Your task to perform on an android device: change the clock display to digital Image 0: 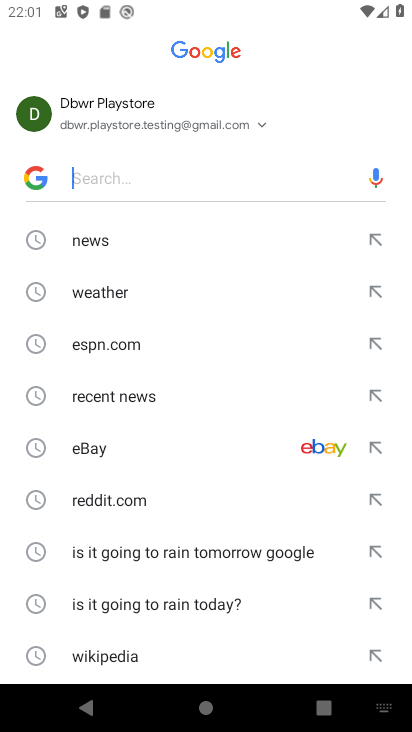
Step 0: press home button
Your task to perform on an android device: change the clock display to digital Image 1: 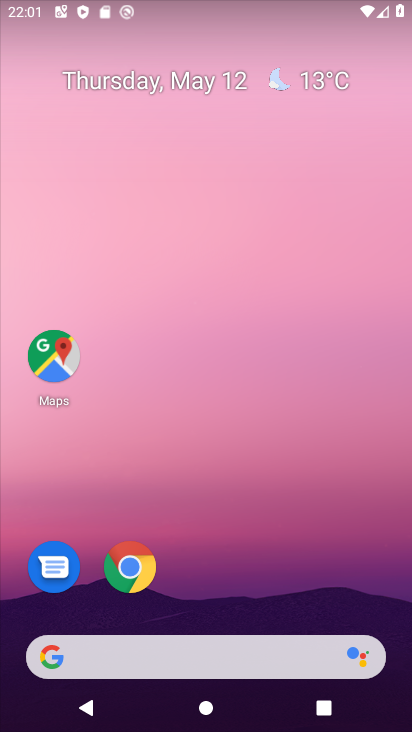
Step 1: drag from (202, 601) to (241, 2)
Your task to perform on an android device: change the clock display to digital Image 2: 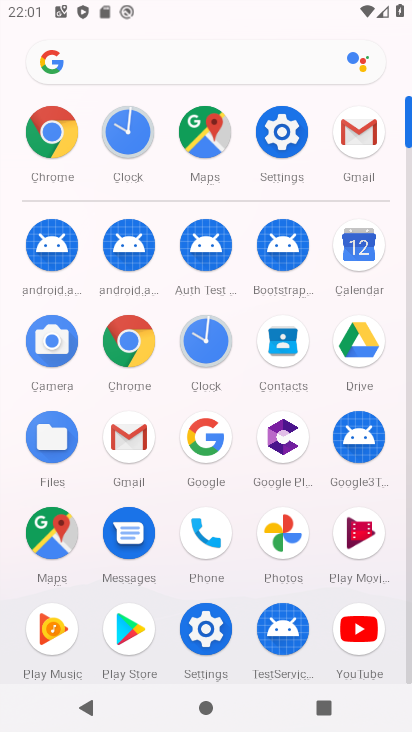
Step 2: click (123, 123)
Your task to perform on an android device: change the clock display to digital Image 3: 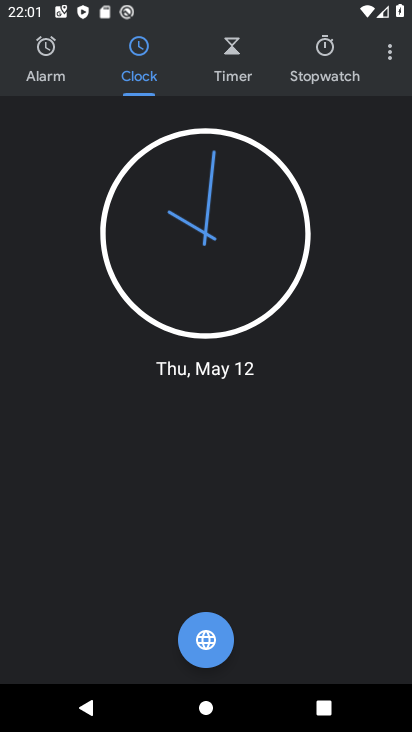
Step 3: click (394, 54)
Your task to perform on an android device: change the clock display to digital Image 4: 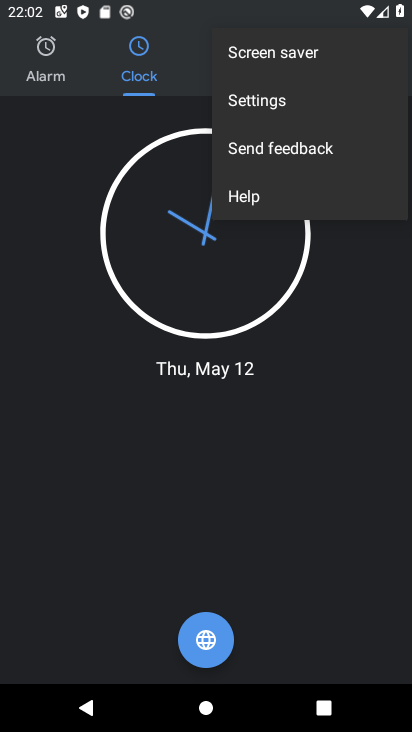
Step 4: click (280, 98)
Your task to perform on an android device: change the clock display to digital Image 5: 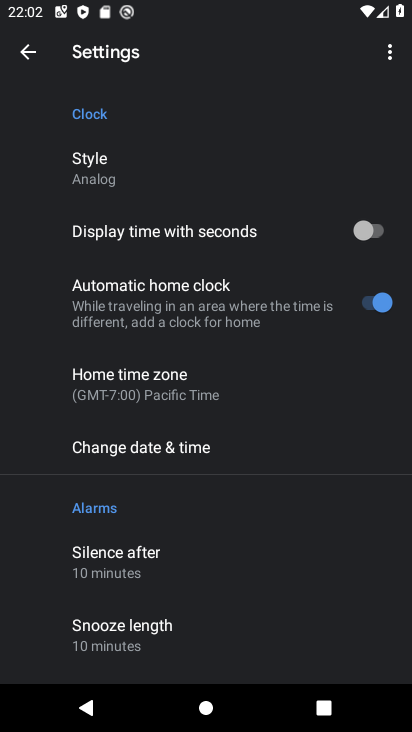
Step 5: click (126, 169)
Your task to perform on an android device: change the clock display to digital Image 6: 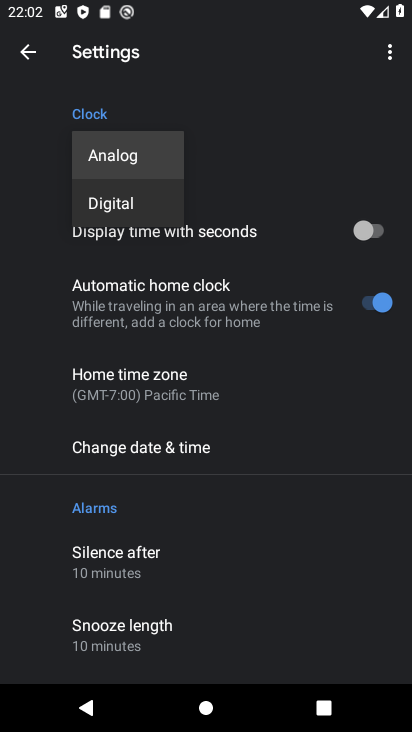
Step 6: click (140, 195)
Your task to perform on an android device: change the clock display to digital Image 7: 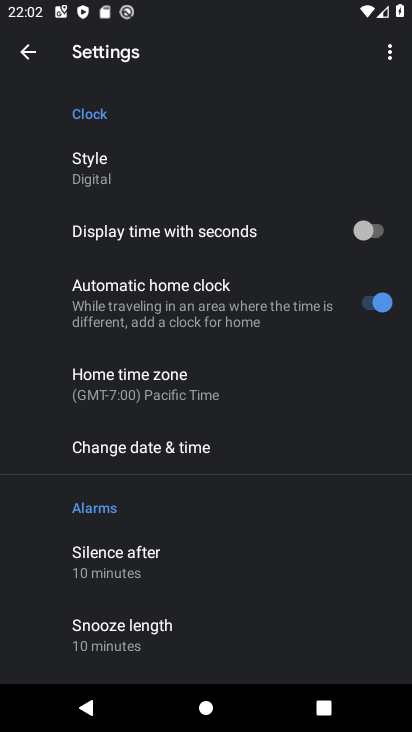
Step 7: task complete